Your task to perform on an android device: toggle location history Image 0: 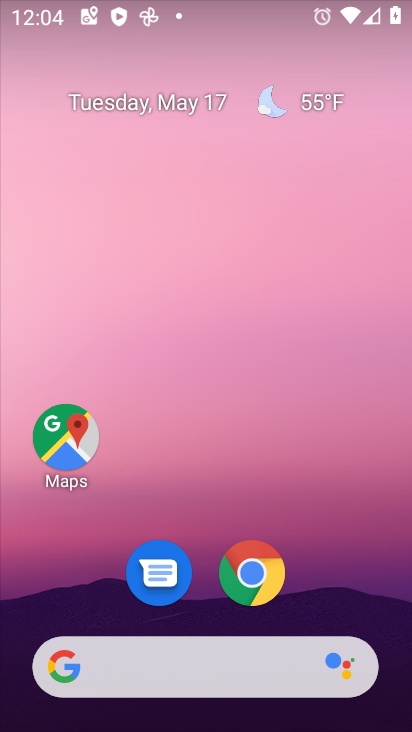
Step 0: drag from (358, 597) to (292, 118)
Your task to perform on an android device: toggle location history Image 1: 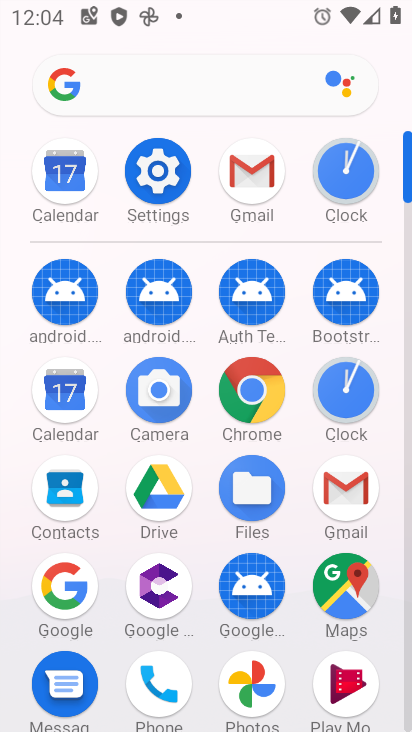
Step 1: click (160, 187)
Your task to perform on an android device: toggle location history Image 2: 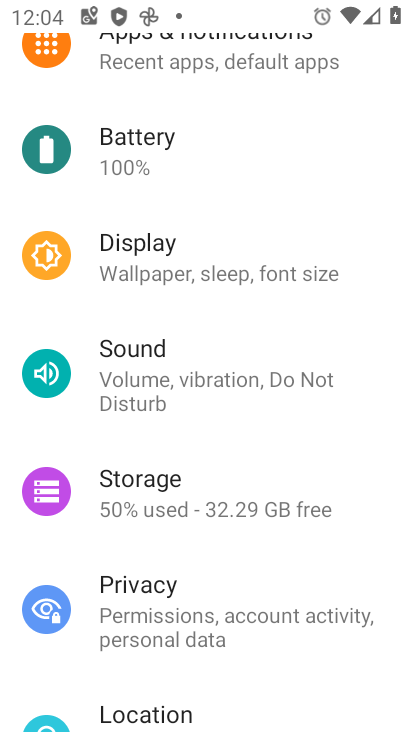
Step 2: click (165, 712)
Your task to perform on an android device: toggle location history Image 3: 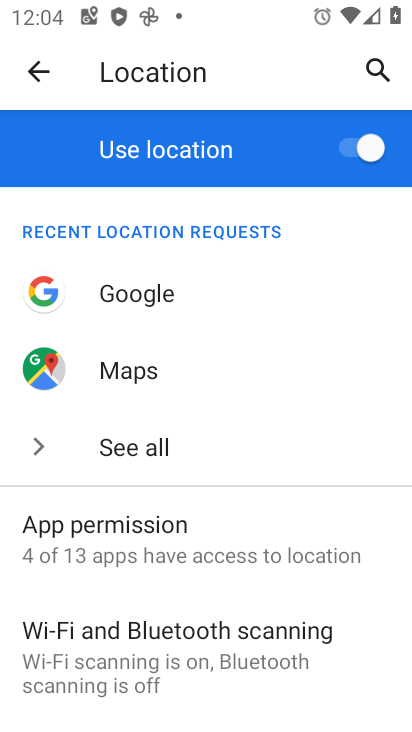
Step 3: drag from (179, 567) to (149, 142)
Your task to perform on an android device: toggle location history Image 4: 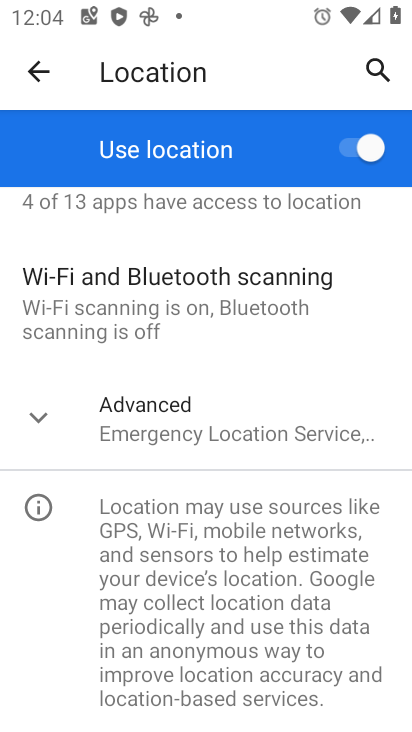
Step 4: click (197, 422)
Your task to perform on an android device: toggle location history Image 5: 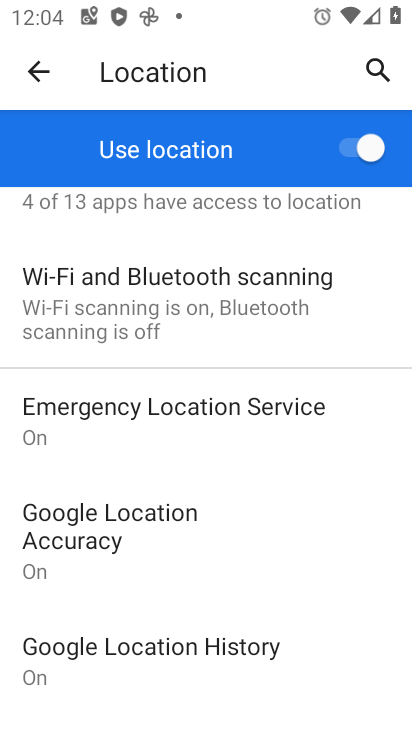
Step 5: click (219, 668)
Your task to perform on an android device: toggle location history Image 6: 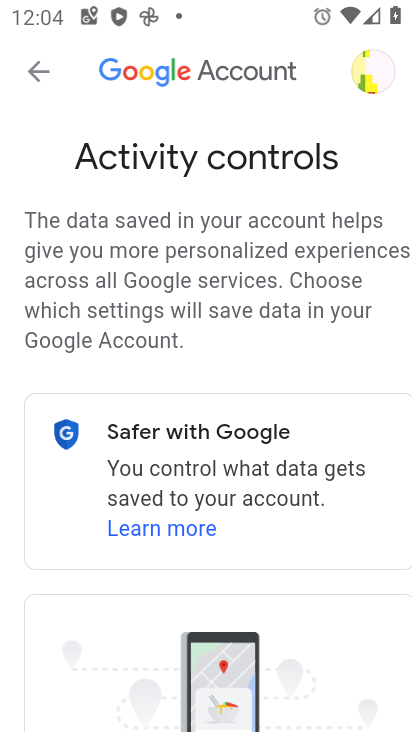
Step 6: drag from (313, 578) to (295, 107)
Your task to perform on an android device: toggle location history Image 7: 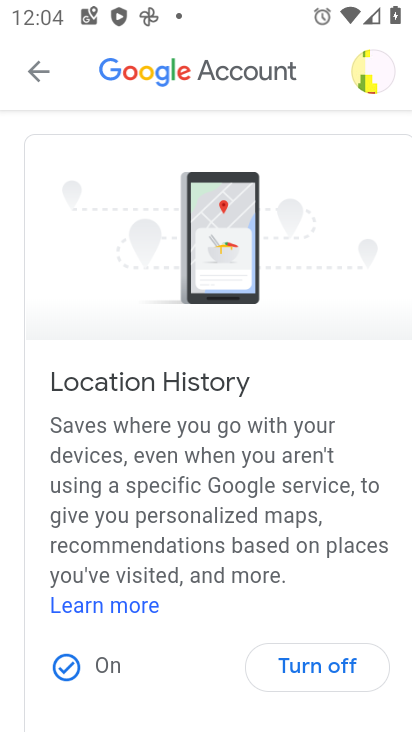
Step 7: click (340, 674)
Your task to perform on an android device: toggle location history Image 8: 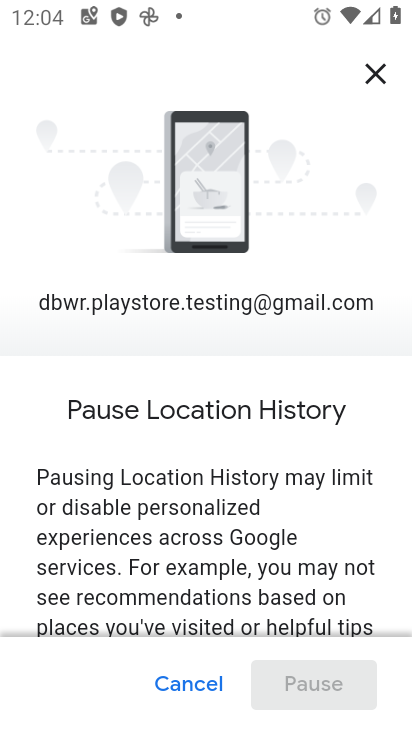
Step 8: drag from (281, 613) to (270, 158)
Your task to perform on an android device: toggle location history Image 9: 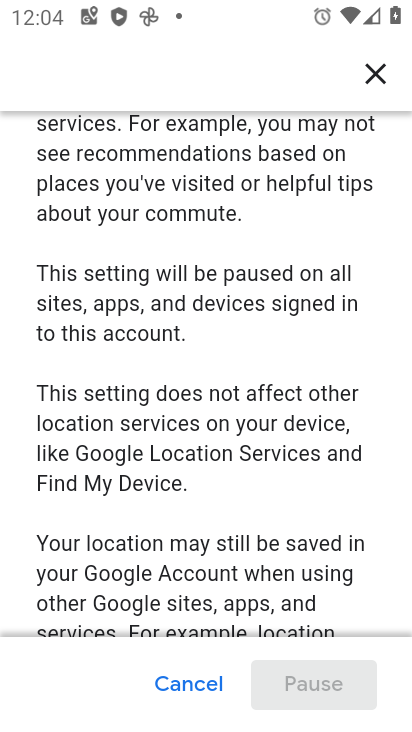
Step 9: drag from (317, 558) to (281, 173)
Your task to perform on an android device: toggle location history Image 10: 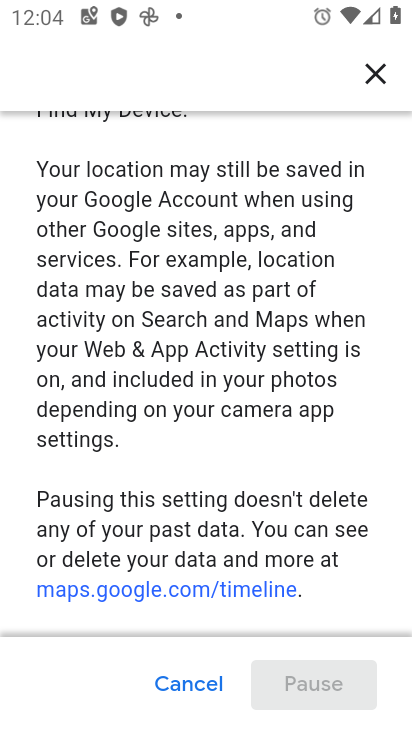
Step 10: drag from (379, 595) to (353, 194)
Your task to perform on an android device: toggle location history Image 11: 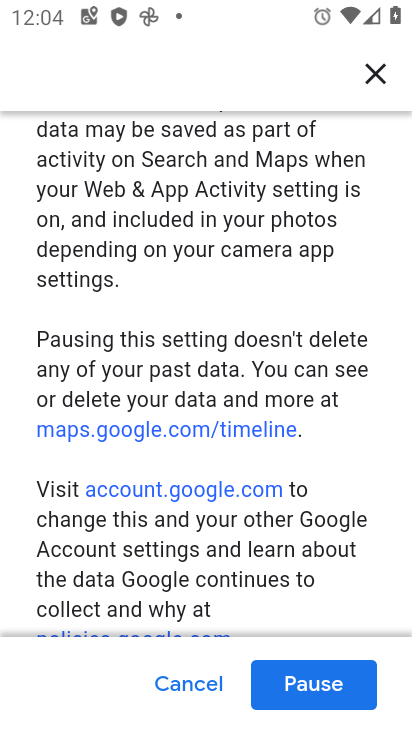
Step 11: click (309, 675)
Your task to perform on an android device: toggle location history Image 12: 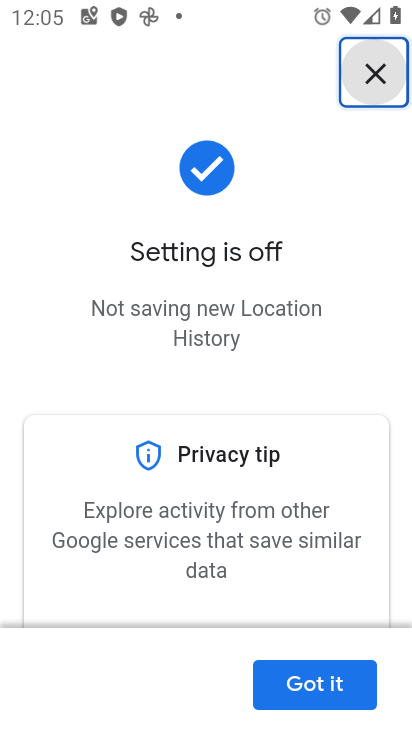
Step 12: click (323, 686)
Your task to perform on an android device: toggle location history Image 13: 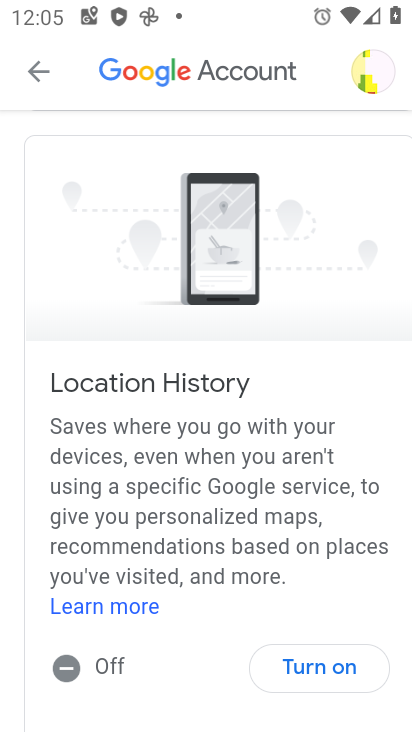
Step 13: task complete